Your task to perform on an android device: toggle javascript in the chrome app Image 0: 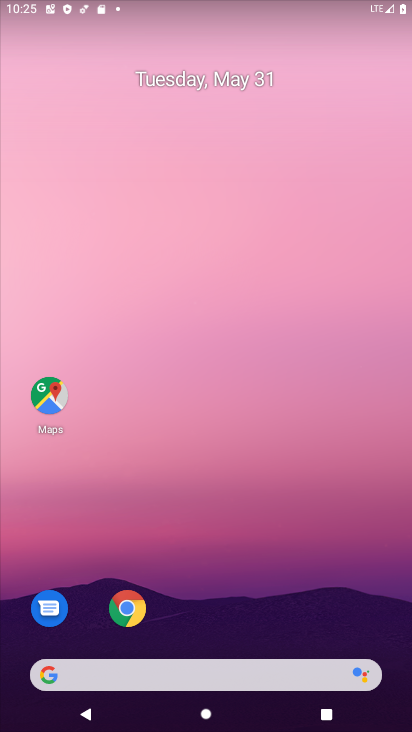
Step 0: click (138, 611)
Your task to perform on an android device: toggle javascript in the chrome app Image 1: 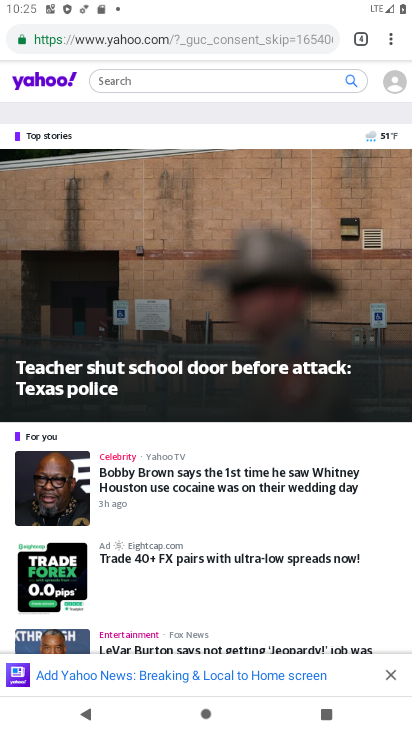
Step 1: drag from (392, 37) to (249, 519)
Your task to perform on an android device: toggle javascript in the chrome app Image 2: 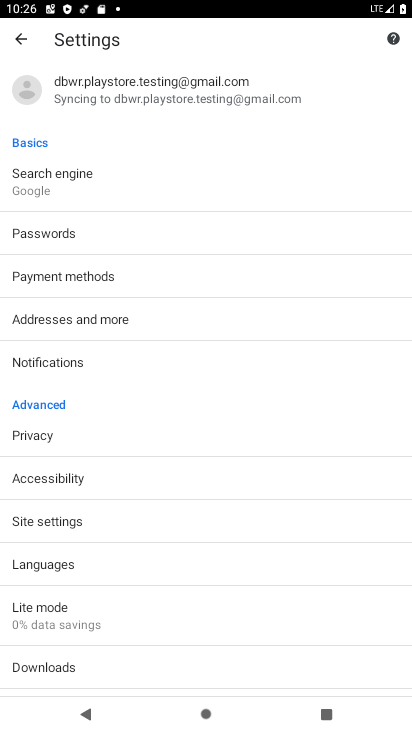
Step 2: drag from (62, 612) to (67, 366)
Your task to perform on an android device: toggle javascript in the chrome app Image 3: 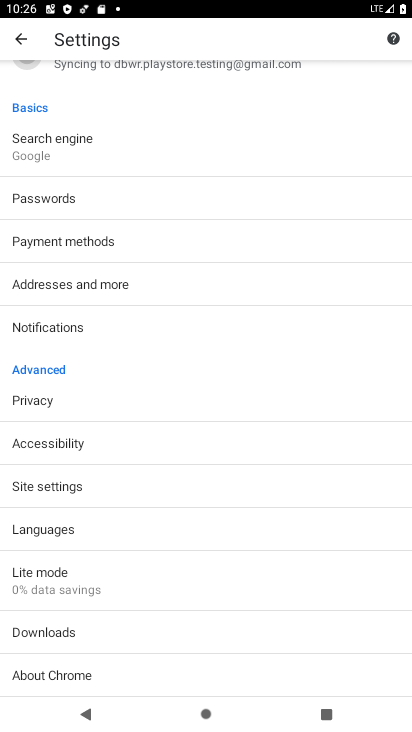
Step 3: click (62, 477)
Your task to perform on an android device: toggle javascript in the chrome app Image 4: 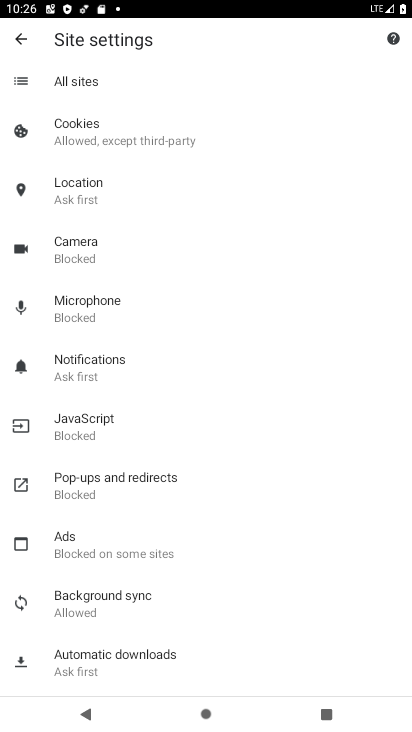
Step 4: click (89, 427)
Your task to perform on an android device: toggle javascript in the chrome app Image 5: 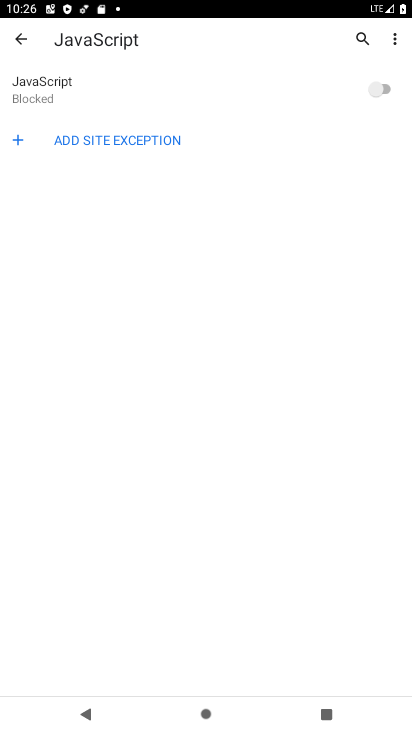
Step 5: click (367, 88)
Your task to perform on an android device: toggle javascript in the chrome app Image 6: 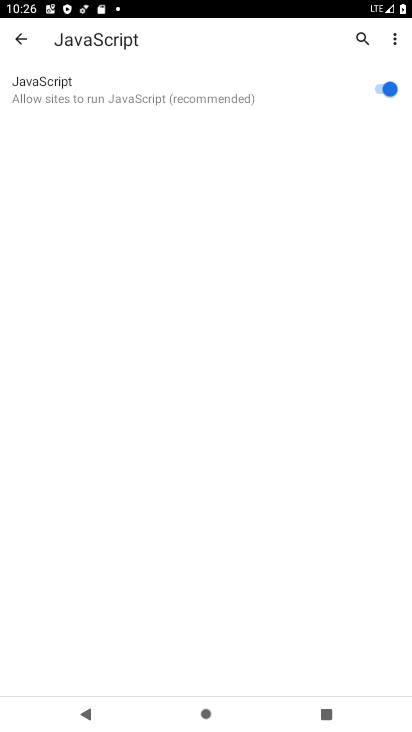
Step 6: task complete